Your task to perform on an android device: change keyboard looks Image 0: 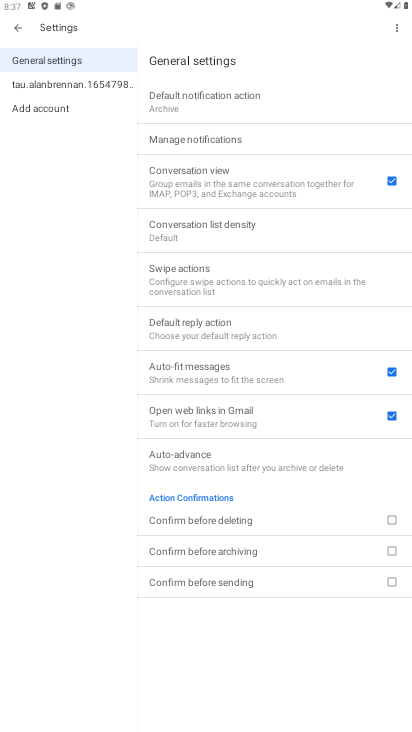
Step 0: press home button
Your task to perform on an android device: change keyboard looks Image 1: 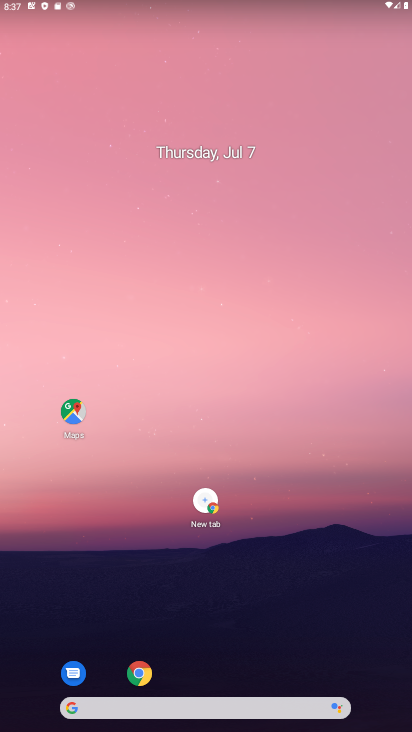
Step 1: drag from (277, 563) to (253, 81)
Your task to perform on an android device: change keyboard looks Image 2: 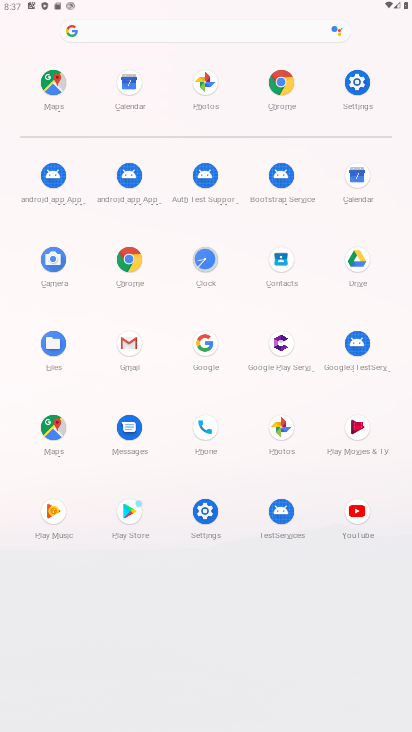
Step 2: click (359, 77)
Your task to perform on an android device: change keyboard looks Image 3: 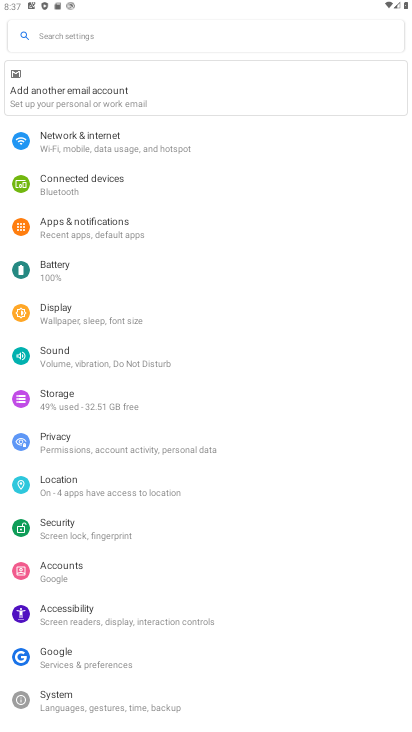
Step 3: click (104, 709)
Your task to perform on an android device: change keyboard looks Image 4: 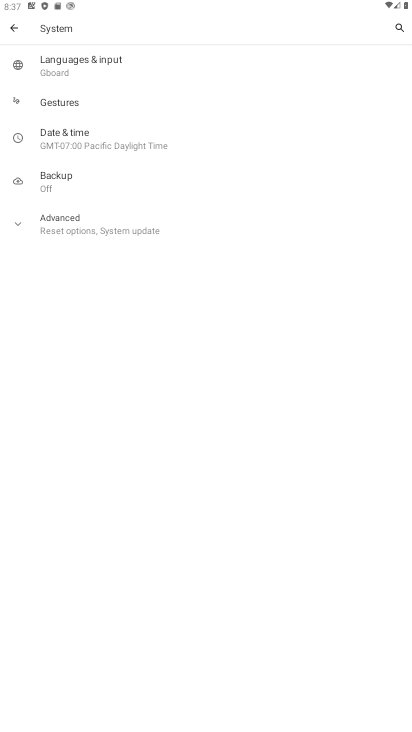
Step 4: click (61, 64)
Your task to perform on an android device: change keyboard looks Image 5: 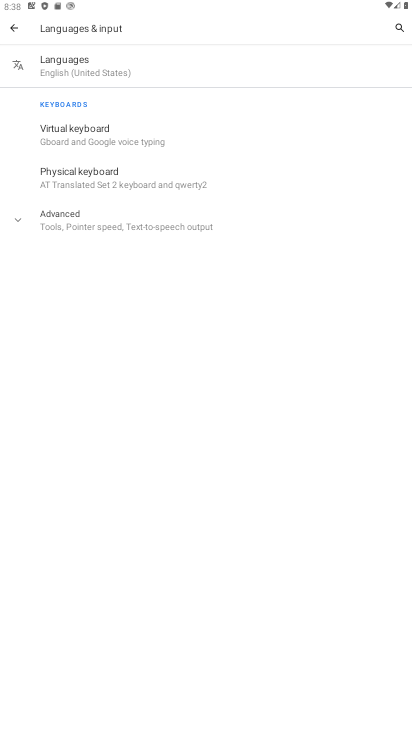
Step 5: click (76, 128)
Your task to perform on an android device: change keyboard looks Image 6: 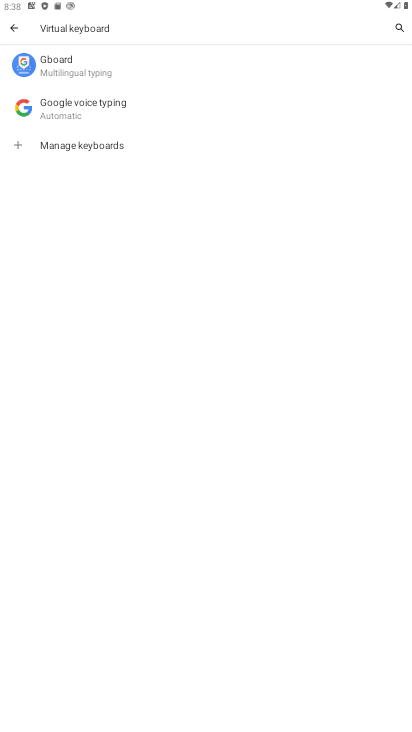
Step 6: click (74, 66)
Your task to perform on an android device: change keyboard looks Image 7: 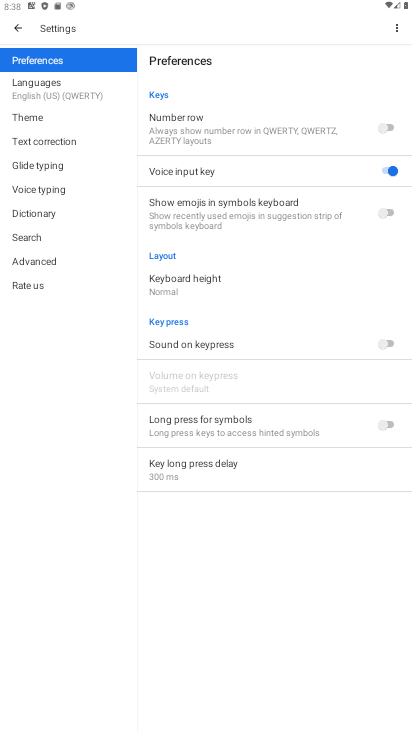
Step 7: click (39, 115)
Your task to perform on an android device: change keyboard looks Image 8: 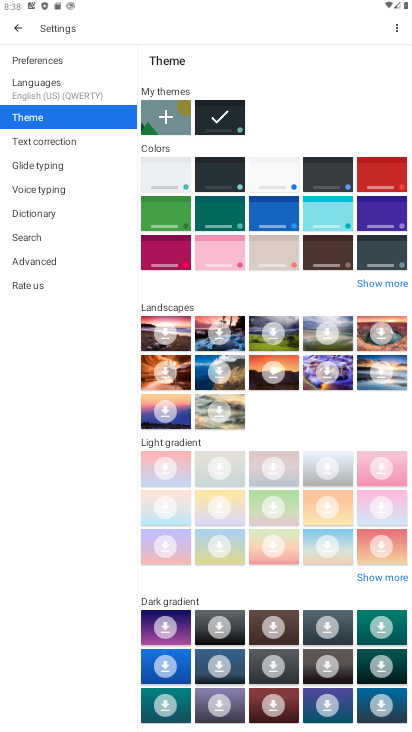
Step 8: click (321, 202)
Your task to perform on an android device: change keyboard looks Image 9: 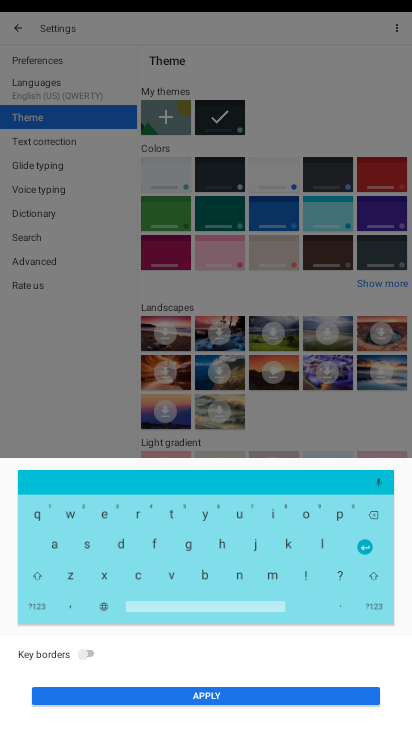
Step 9: click (208, 699)
Your task to perform on an android device: change keyboard looks Image 10: 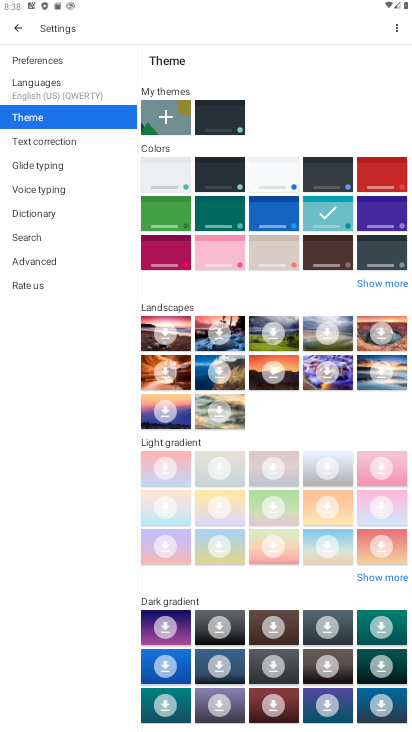
Step 10: task complete